Your task to perform on an android device: add a contact in the contacts app Image 0: 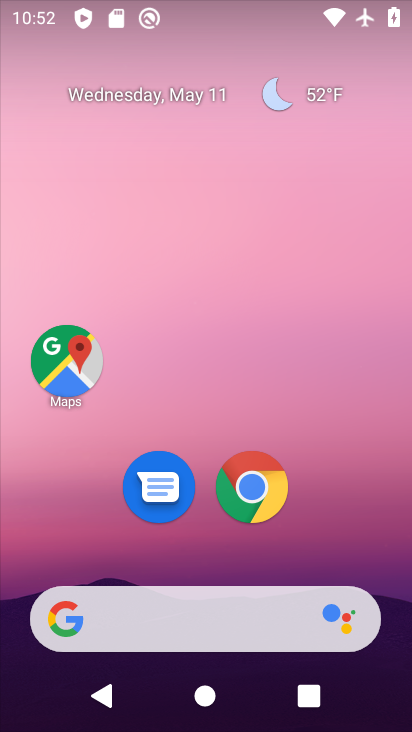
Step 0: drag from (349, 548) to (247, 24)
Your task to perform on an android device: add a contact in the contacts app Image 1: 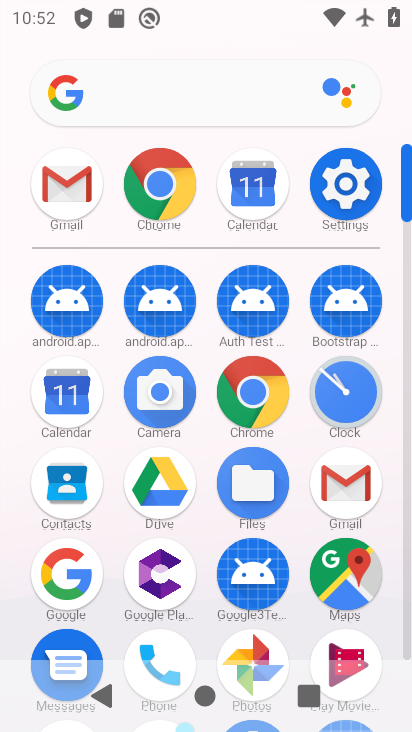
Step 1: drag from (15, 547) to (16, 253)
Your task to perform on an android device: add a contact in the contacts app Image 2: 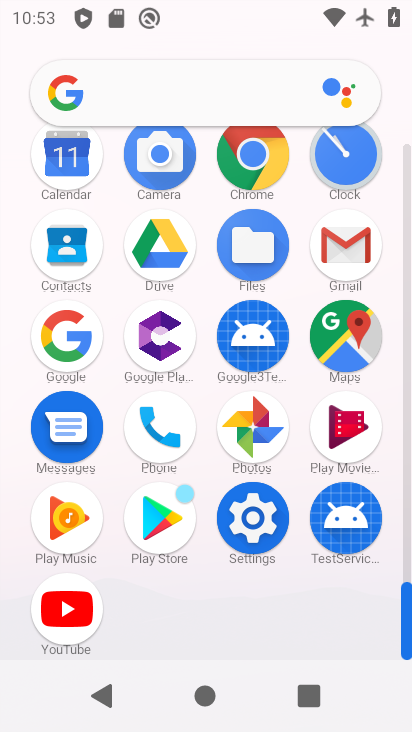
Step 2: drag from (12, 307) to (28, 510)
Your task to perform on an android device: add a contact in the contacts app Image 3: 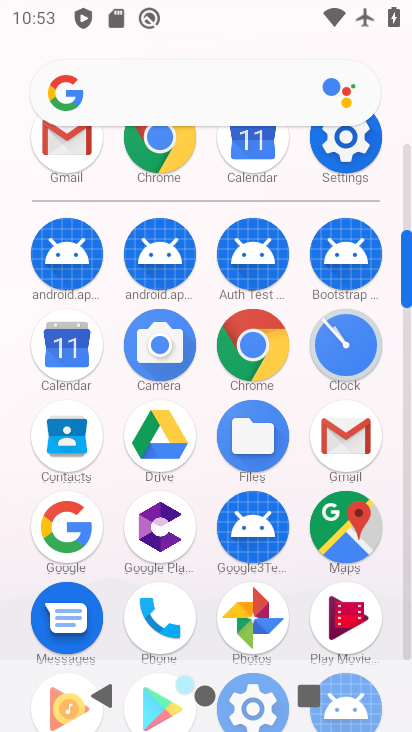
Step 3: click (69, 434)
Your task to perform on an android device: add a contact in the contacts app Image 4: 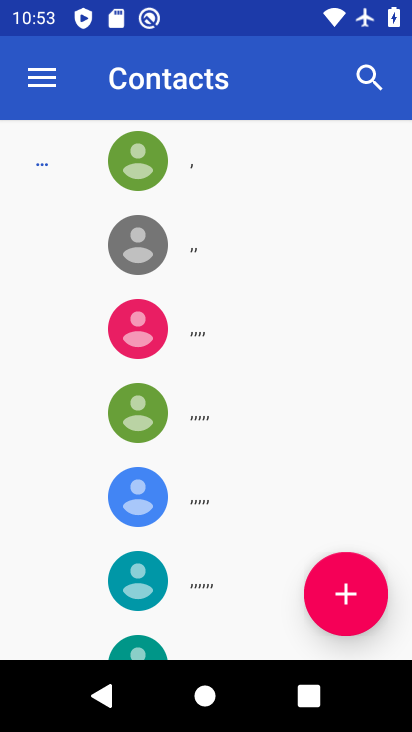
Step 4: task complete